Your task to perform on an android device: Go to display settings Image 0: 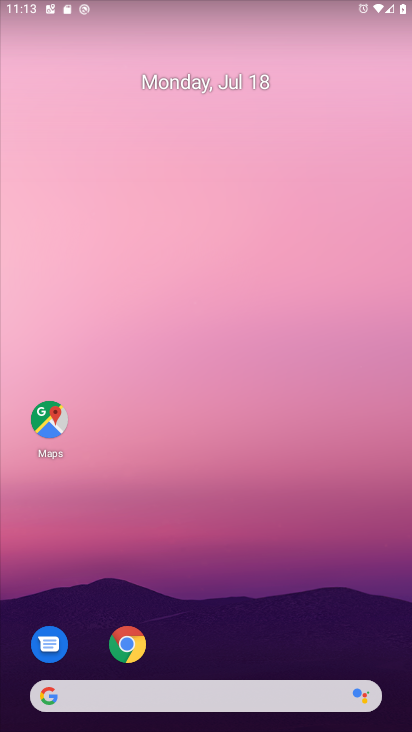
Step 0: drag from (260, 636) to (194, 181)
Your task to perform on an android device: Go to display settings Image 1: 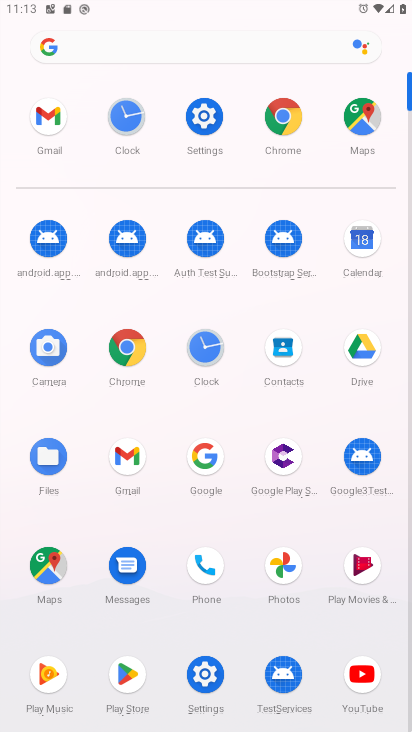
Step 1: click (204, 136)
Your task to perform on an android device: Go to display settings Image 2: 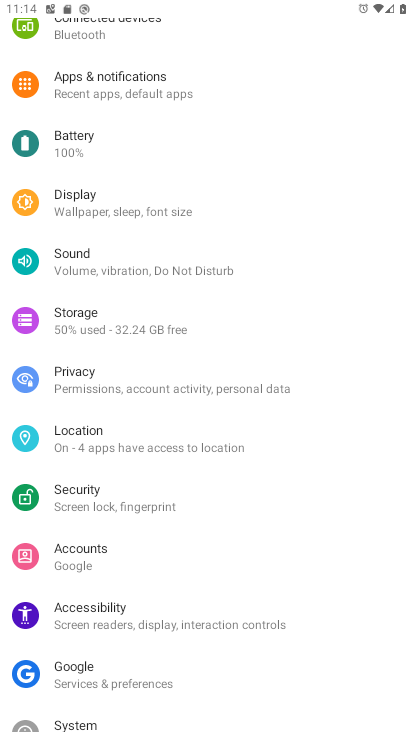
Step 2: click (219, 226)
Your task to perform on an android device: Go to display settings Image 3: 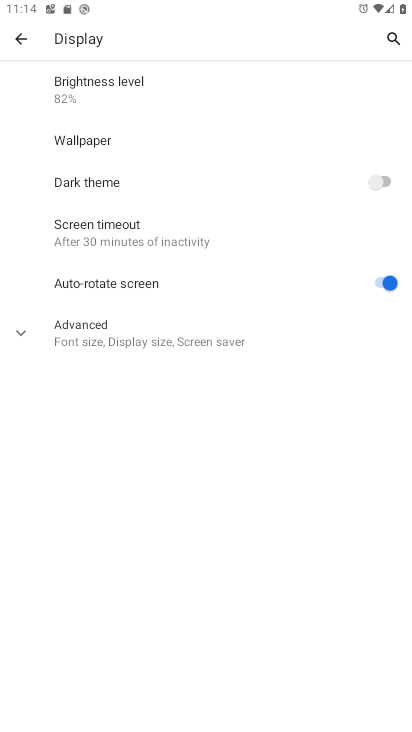
Step 3: task complete